Your task to perform on an android device: Go to Maps Image 0: 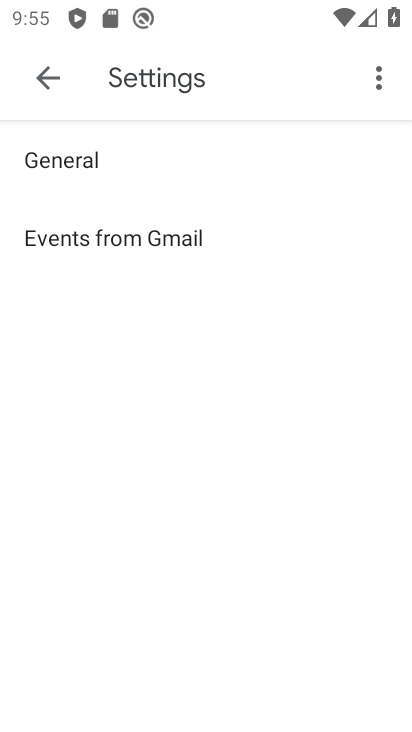
Step 0: press home button
Your task to perform on an android device: Go to Maps Image 1: 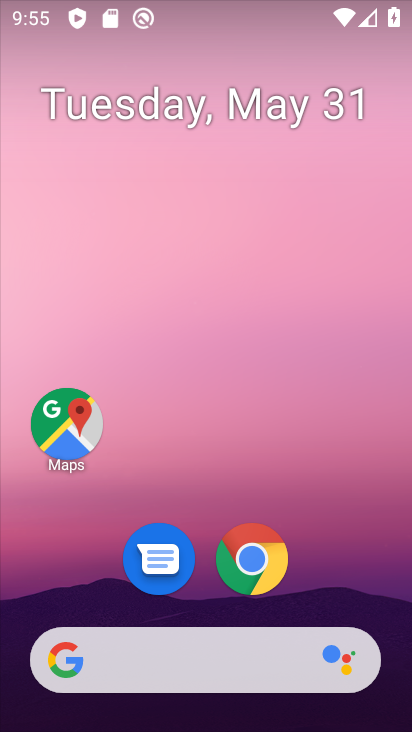
Step 1: click (83, 431)
Your task to perform on an android device: Go to Maps Image 2: 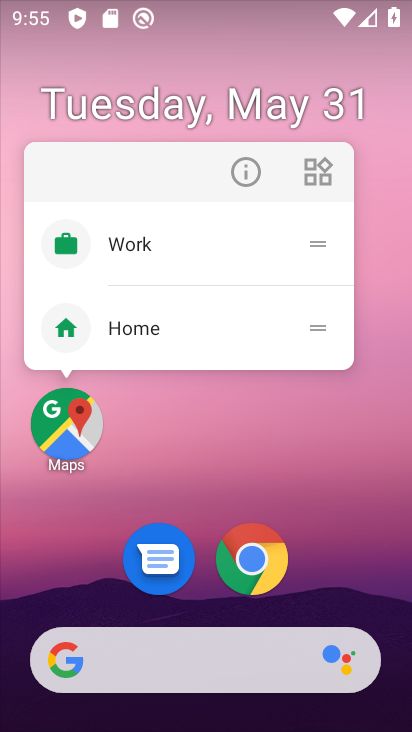
Step 2: click (68, 452)
Your task to perform on an android device: Go to Maps Image 3: 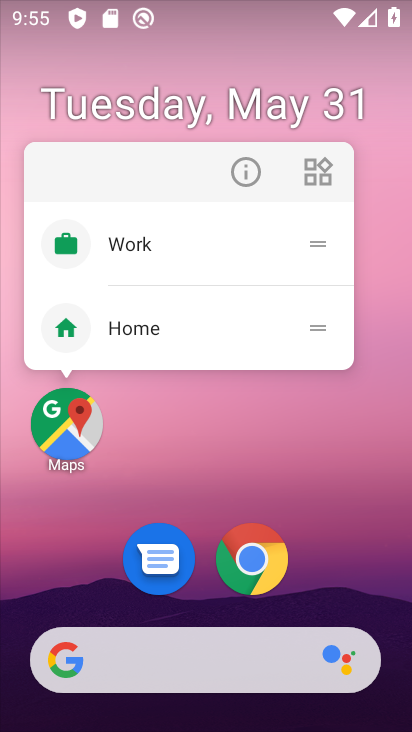
Step 3: click (66, 427)
Your task to perform on an android device: Go to Maps Image 4: 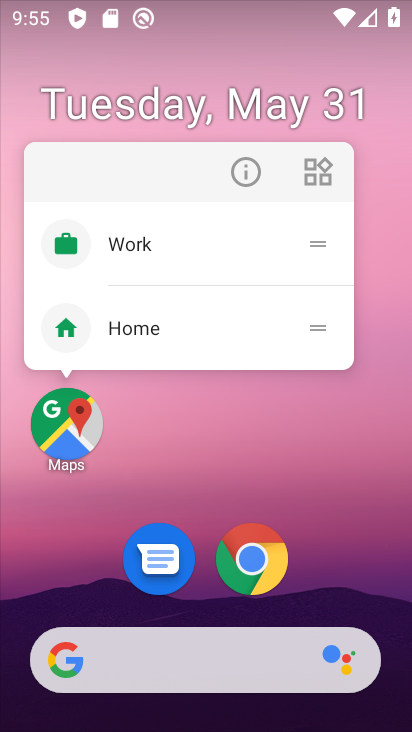
Step 4: click (66, 427)
Your task to perform on an android device: Go to Maps Image 5: 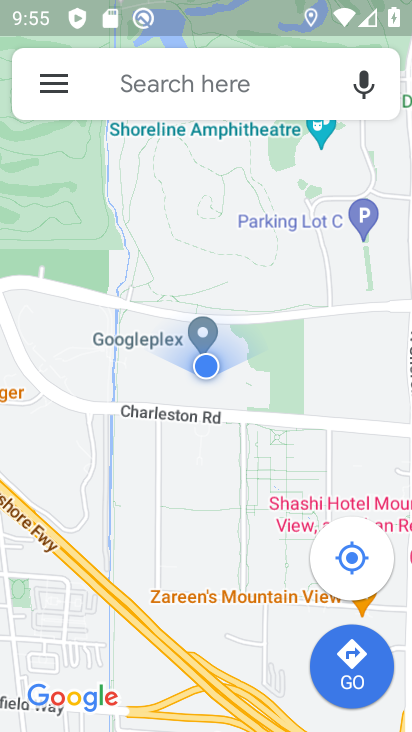
Step 5: task complete